Your task to perform on an android device: Toggle the flashlight Image 0: 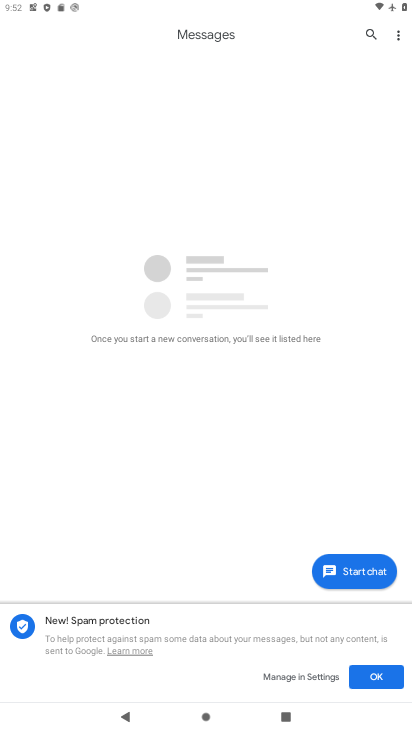
Step 0: press home button
Your task to perform on an android device: Toggle the flashlight Image 1: 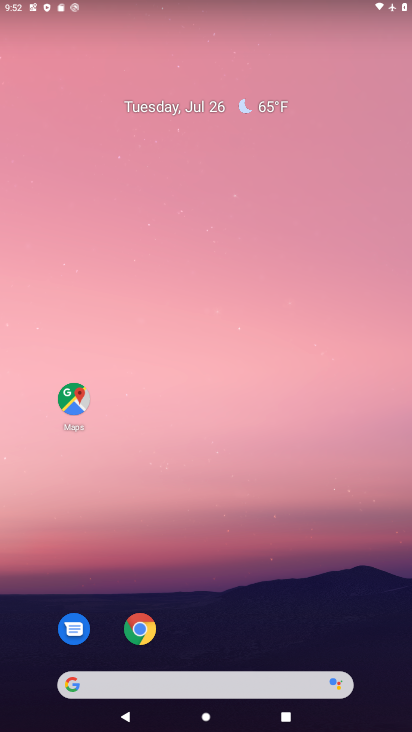
Step 1: drag from (319, 627) to (227, 56)
Your task to perform on an android device: Toggle the flashlight Image 2: 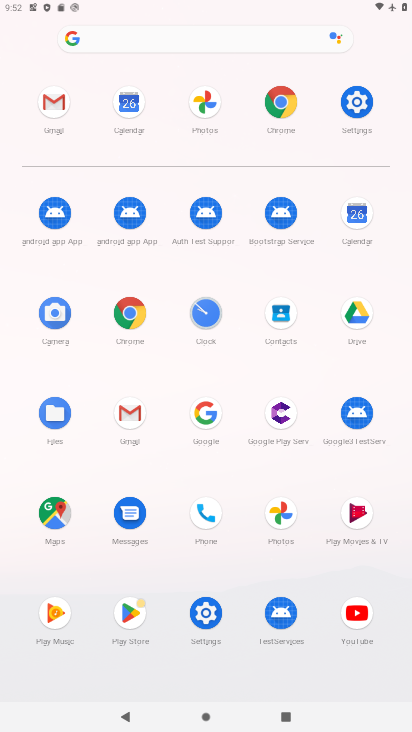
Step 2: click (358, 97)
Your task to perform on an android device: Toggle the flashlight Image 3: 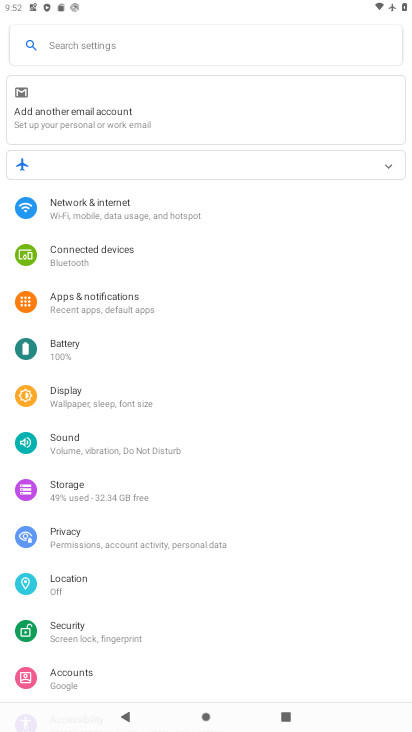
Step 3: click (120, 405)
Your task to perform on an android device: Toggle the flashlight Image 4: 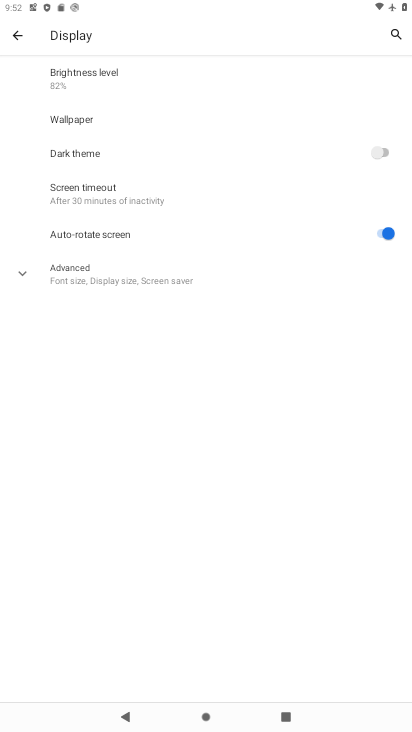
Step 4: click (128, 193)
Your task to perform on an android device: Toggle the flashlight Image 5: 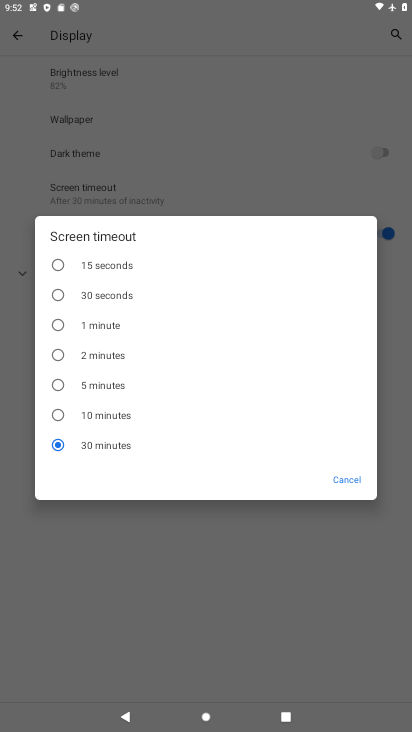
Step 5: task complete